Your task to perform on an android device: turn notification dots on Image 0: 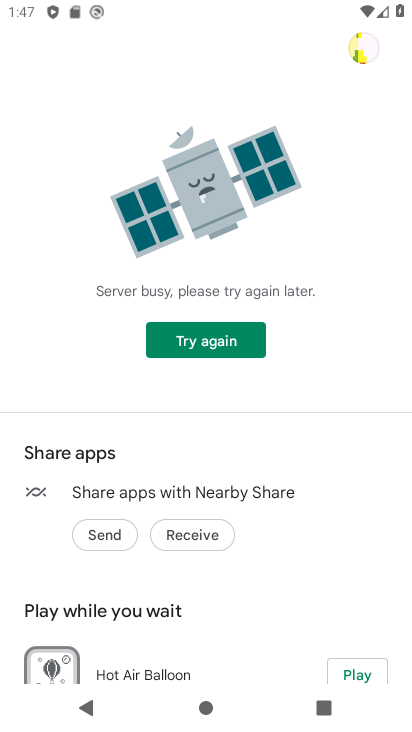
Step 0: press home button
Your task to perform on an android device: turn notification dots on Image 1: 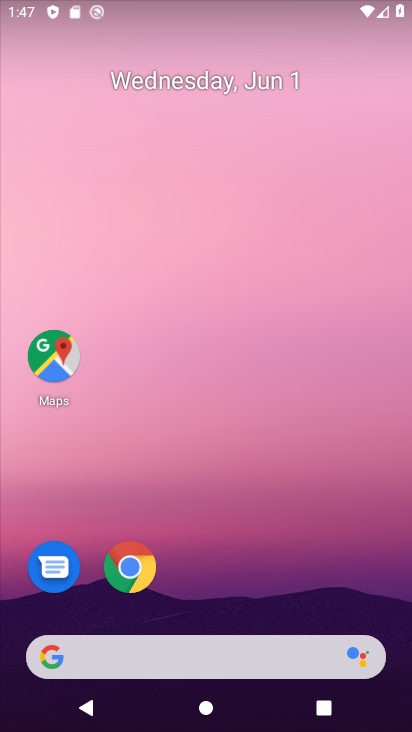
Step 1: drag from (206, 561) to (151, 156)
Your task to perform on an android device: turn notification dots on Image 2: 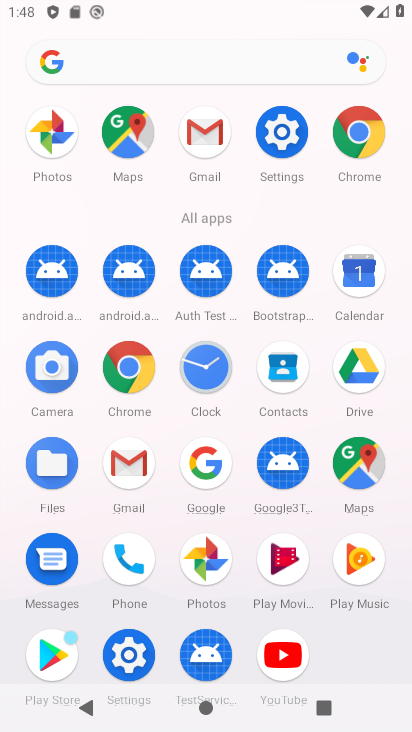
Step 2: click (131, 656)
Your task to perform on an android device: turn notification dots on Image 3: 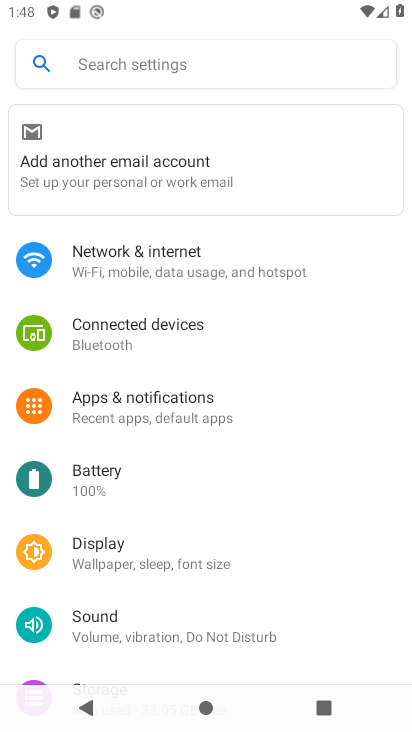
Step 3: click (154, 401)
Your task to perform on an android device: turn notification dots on Image 4: 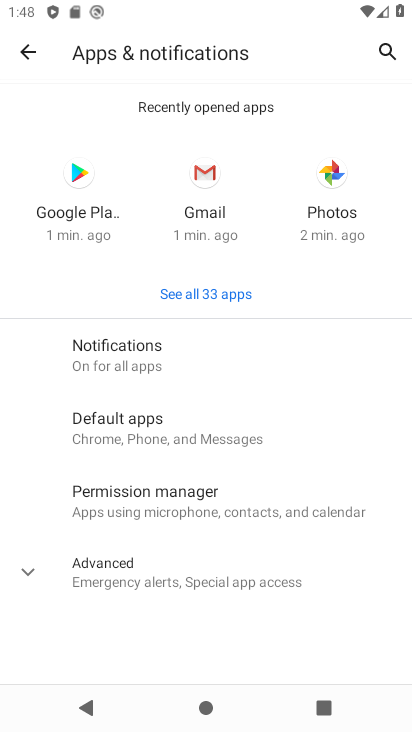
Step 4: click (129, 352)
Your task to perform on an android device: turn notification dots on Image 5: 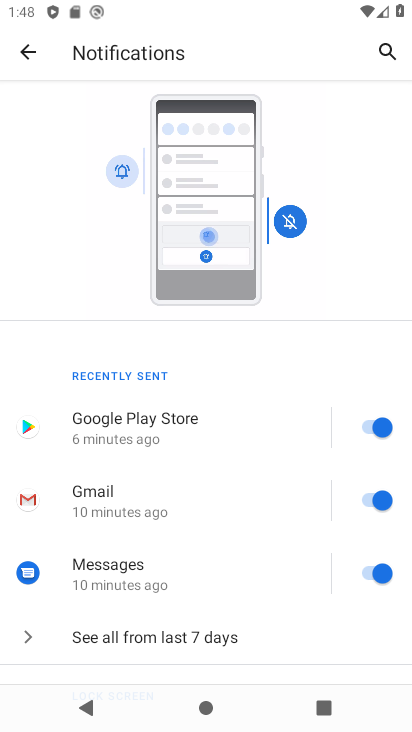
Step 5: drag from (228, 531) to (219, 198)
Your task to perform on an android device: turn notification dots on Image 6: 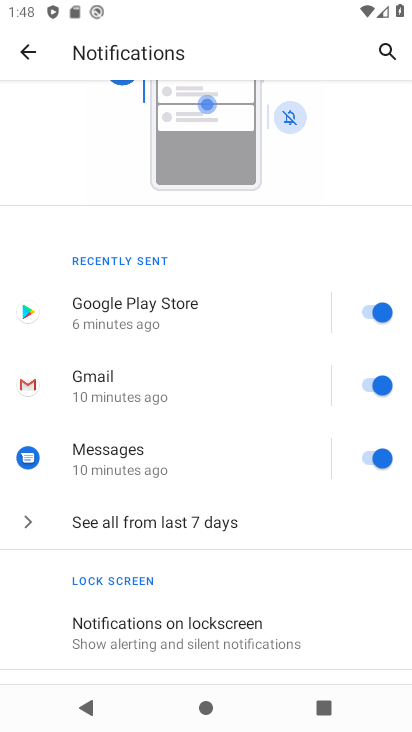
Step 6: drag from (282, 583) to (281, 278)
Your task to perform on an android device: turn notification dots on Image 7: 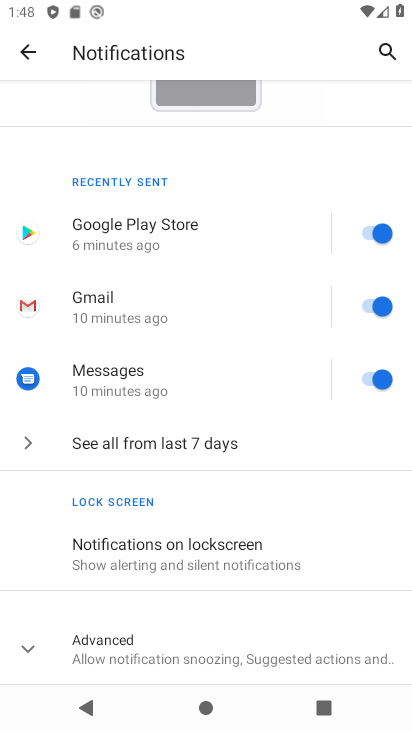
Step 7: click (30, 643)
Your task to perform on an android device: turn notification dots on Image 8: 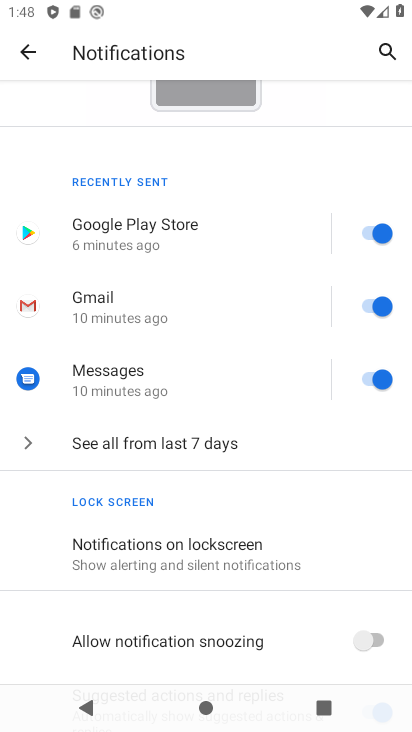
Step 8: task complete